Your task to perform on an android device: open a new tab in the chrome app Image 0: 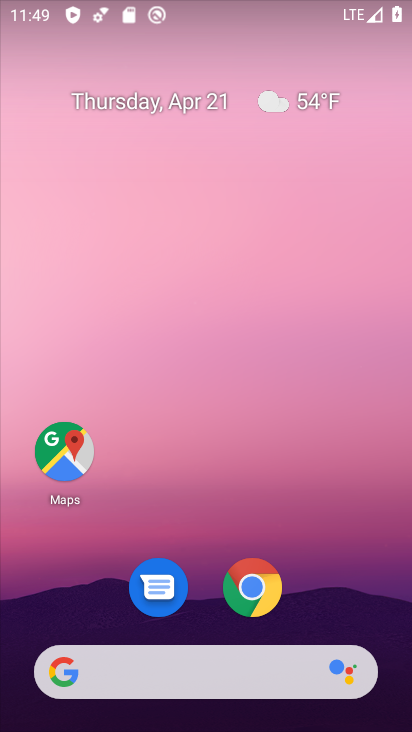
Step 0: click (245, 594)
Your task to perform on an android device: open a new tab in the chrome app Image 1: 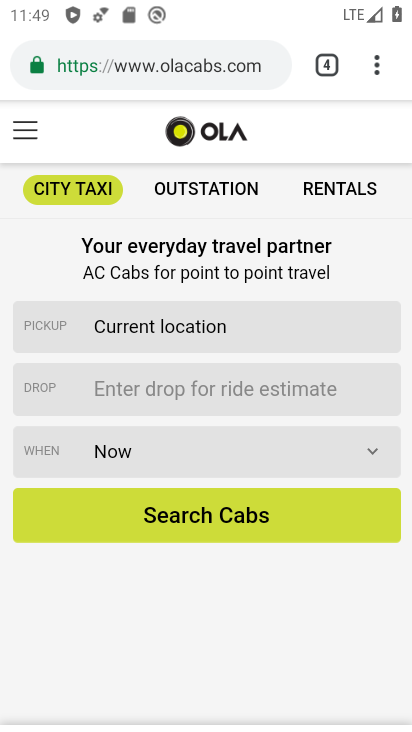
Step 1: click (375, 63)
Your task to perform on an android device: open a new tab in the chrome app Image 2: 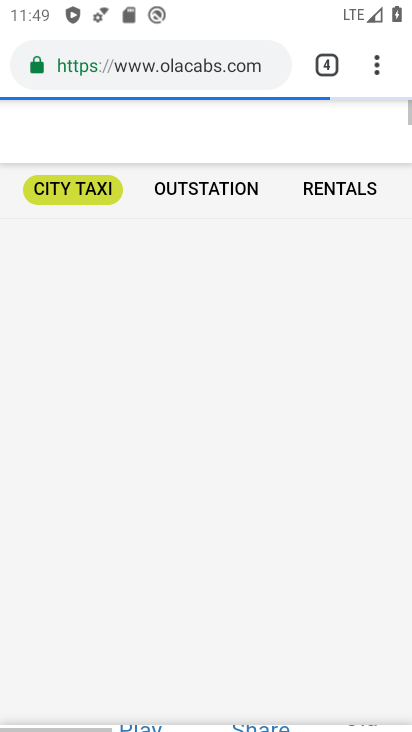
Step 2: task complete